Your task to perform on an android device: turn off smart reply in the gmail app Image 0: 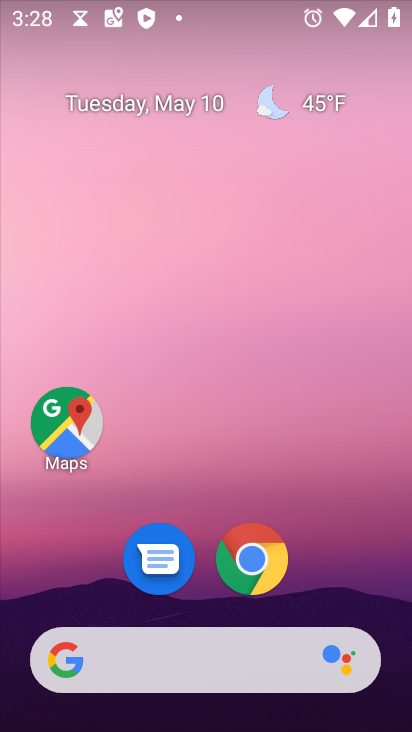
Step 0: drag from (396, 579) to (137, 33)
Your task to perform on an android device: turn off smart reply in the gmail app Image 1: 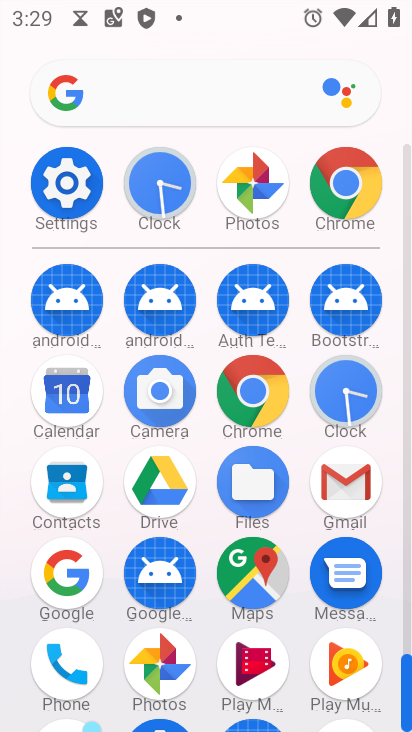
Step 1: click (345, 489)
Your task to perform on an android device: turn off smart reply in the gmail app Image 2: 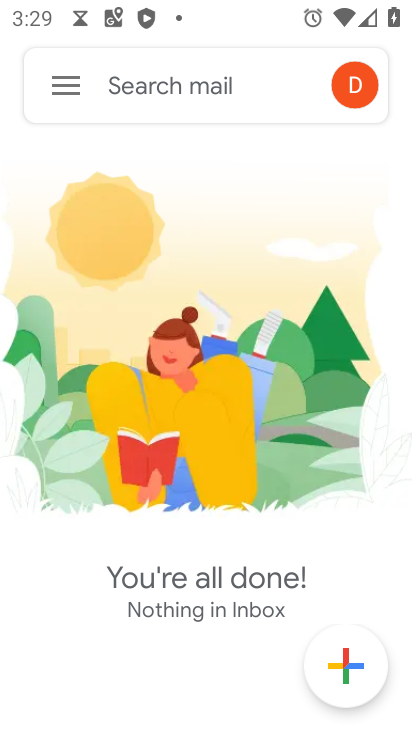
Step 2: click (55, 103)
Your task to perform on an android device: turn off smart reply in the gmail app Image 3: 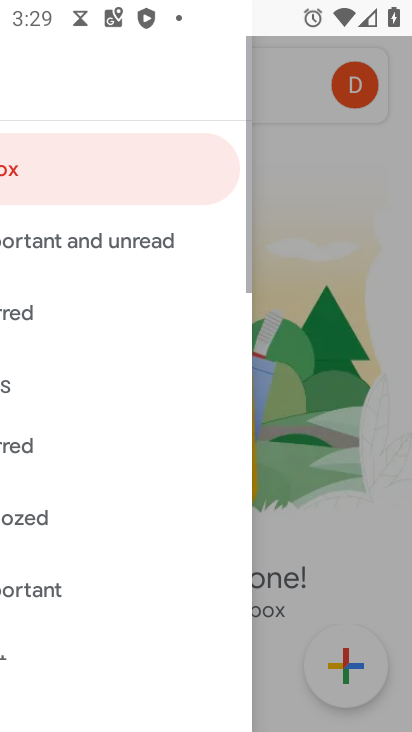
Step 3: click (62, 82)
Your task to perform on an android device: turn off smart reply in the gmail app Image 4: 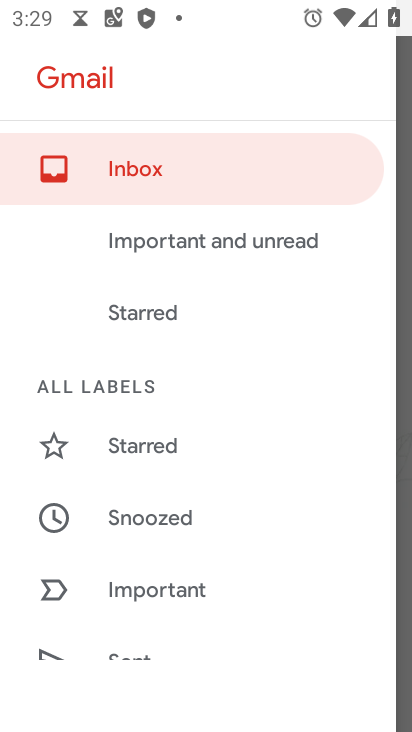
Step 4: drag from (170, 583) to (145, 176)
Your task to perform on an android device: turn off smart reply in the gmail app Image 5: 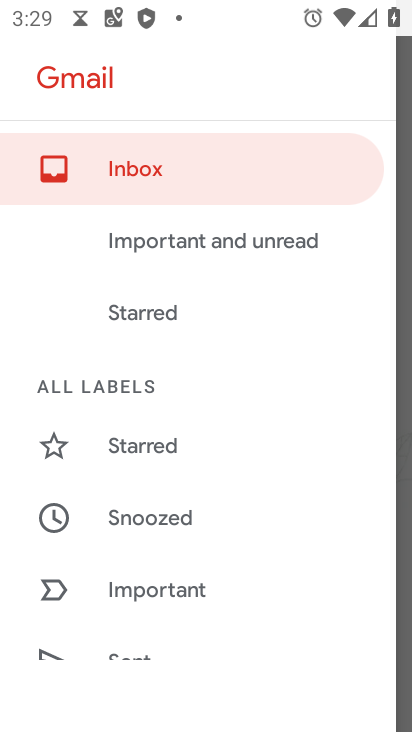
Step 5: drag from (196, 266) to (209, 231)
Your task to perform on an android device: turn off smart reply in the gmail app Image 6: 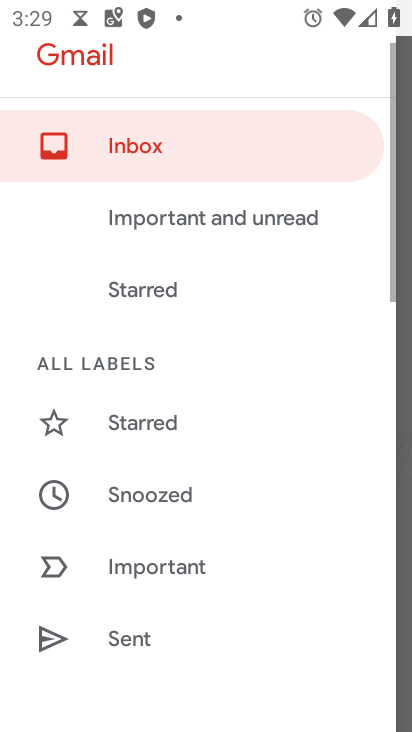
Step 6: drag from (115, 479) to (115, 320)
Your task to perform on an android device: turn off smart reply in the gmail app Image 7: 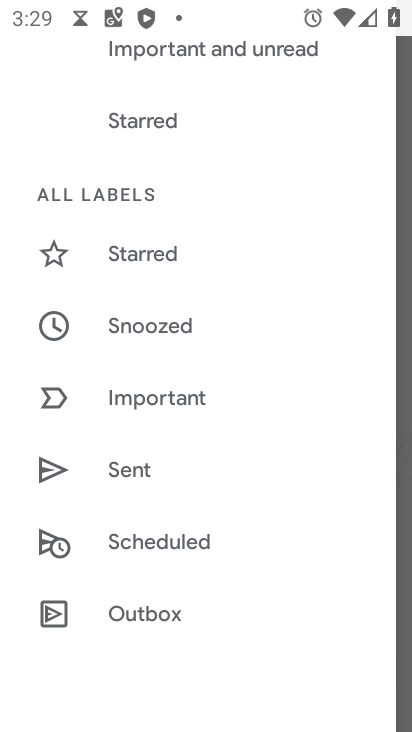
Step 7: drag from (165, 372) to (168, 132)
Your task to perform on an android device: turn off smart reply in the gmail app Image 8: 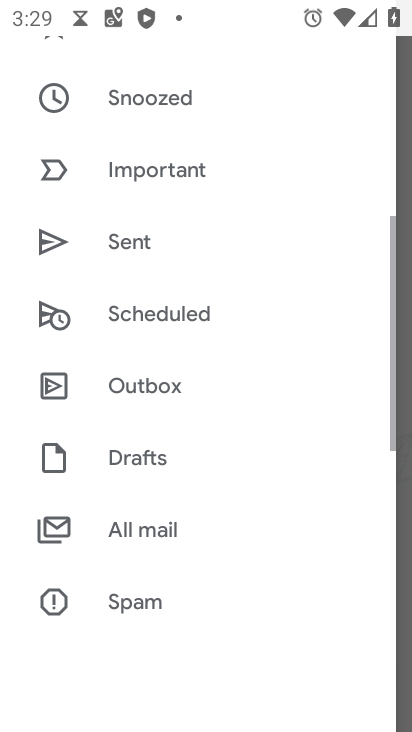
Step 8: drag from (245, 576) to (228, 207)
Your task to perform on an android device: turn off smart reply in the gmail app Image 9: 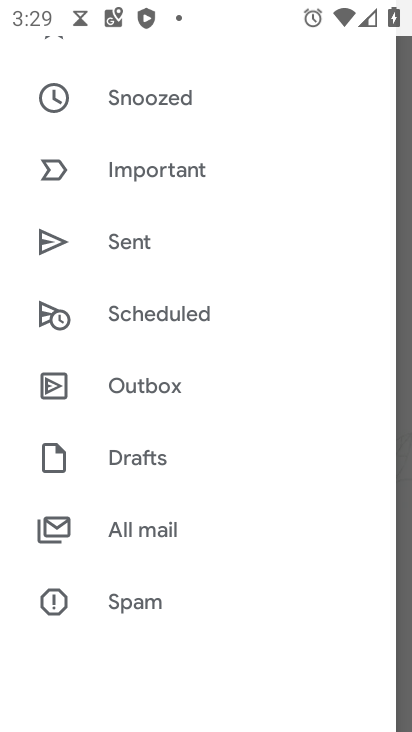
Step 9: drag from (127, 185) to (229, 159)
Your task to perform on an android device: turn off smart reply in the gmail app Image 10: 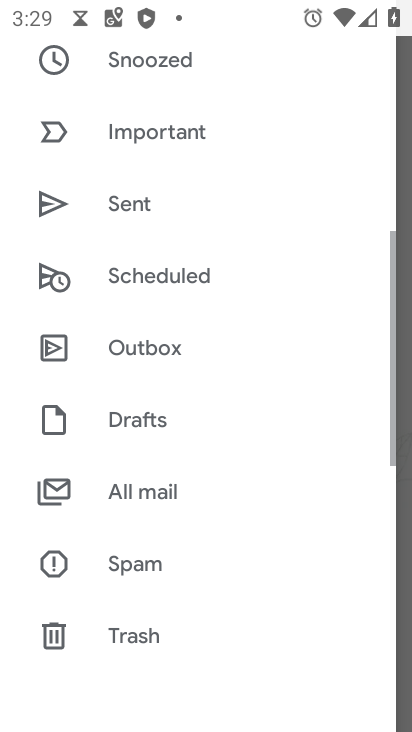
Step 10: drag from (157, 164) to (119, 201)
Your task to perform on an android device: turn off smart reply in the gmail app Image 11: 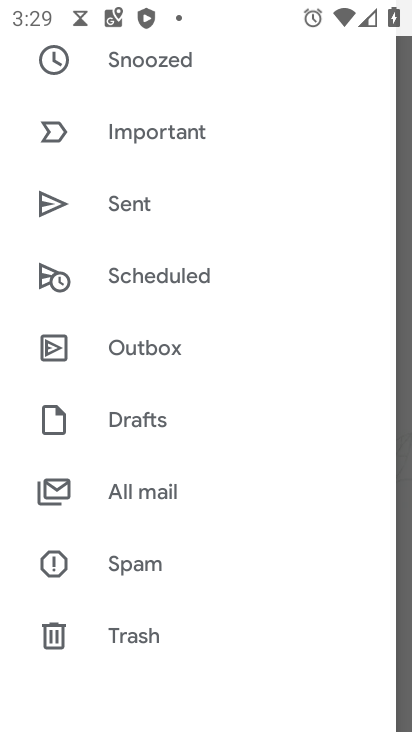
Step 11: drag from (144, 140) to (126, 3)
Your task to perform on an android device: turn off smart reply in the gmail app Image 12: 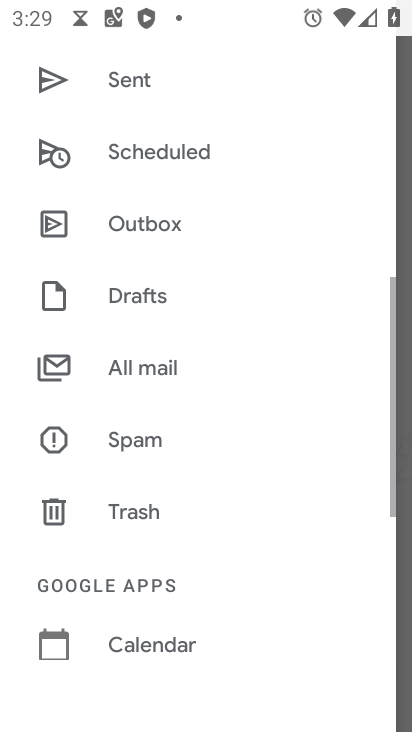
Step 12: drag from (131, 333) to (42, 11)
Your task to perform on an android device: turn off smart reply in the gmail app Image 13: 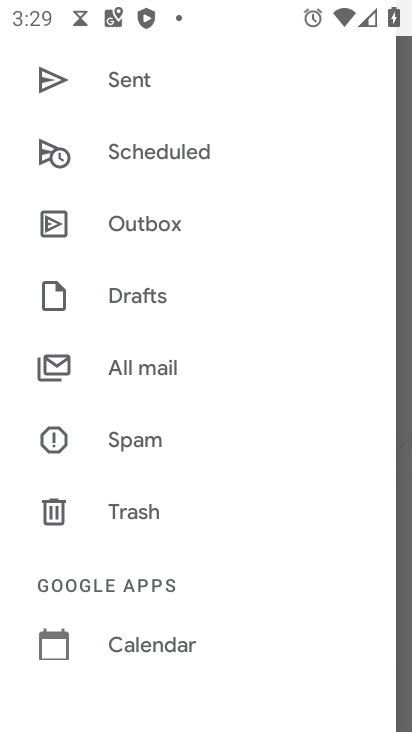
Step 13: drag from (147, 353) to (168, 0)
Your task to perform on an android device: turn off smart reply in the gmail app Image 14: 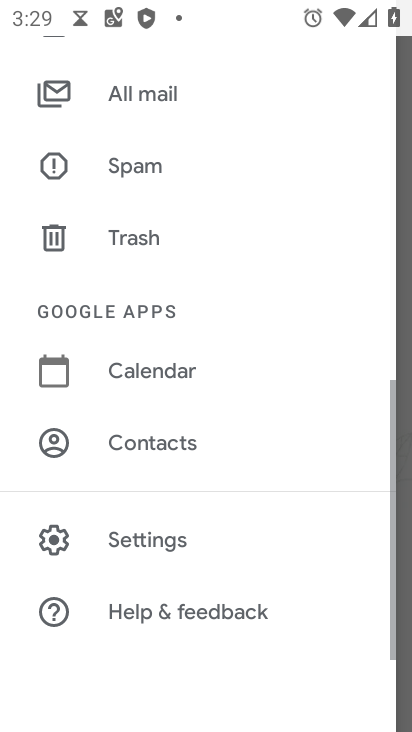
Step 14: click (158, 535)
Your task to perform on an android device: turn off smart reply in the gmail app Image 15: 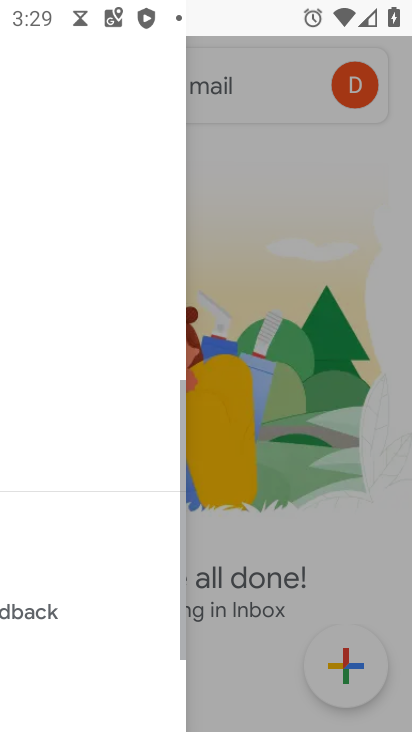
Step 15: click (156, 535)
Your task to perform on an android device: turn off smart reply in the gmail app Image 16: 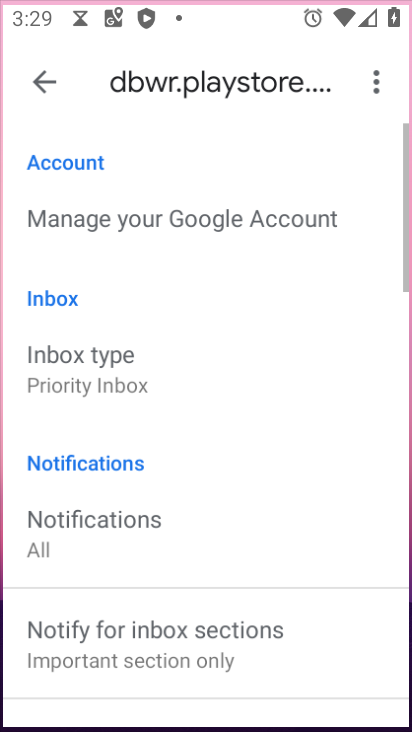
Step 16: click (156, 541)
Your task to perform on an android device: turn off smart reply in the gmail app Image 17: 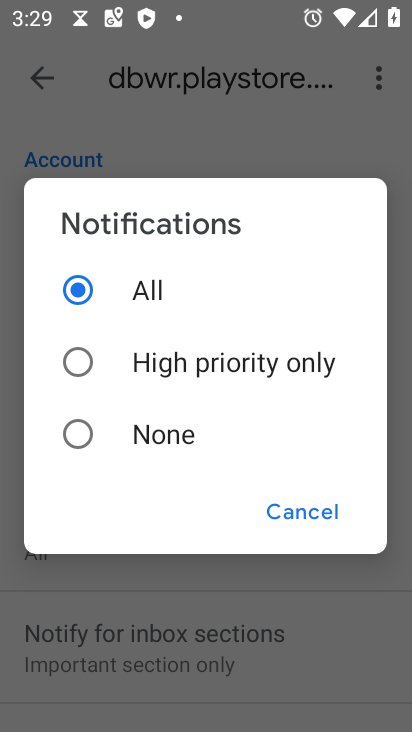
Step 17: click (286, 507)
Your task to perform on an android device: turn off smart reply in the gmail app Image 18: 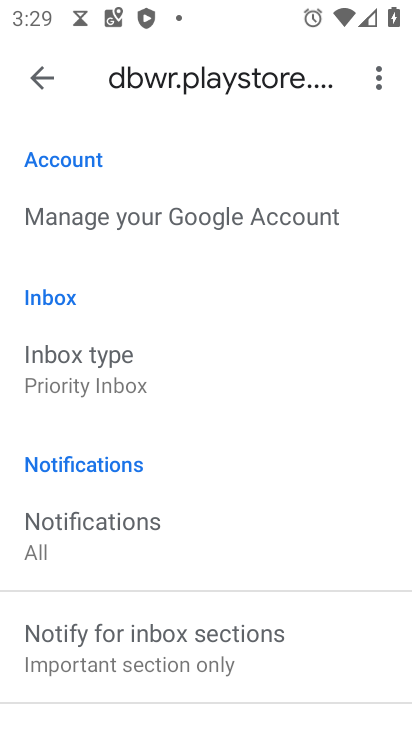
Step 18: drag from (122, 424) to (80, 91)
Your task to perform on an android device: turn off smart reply in the gmail app Image 19: 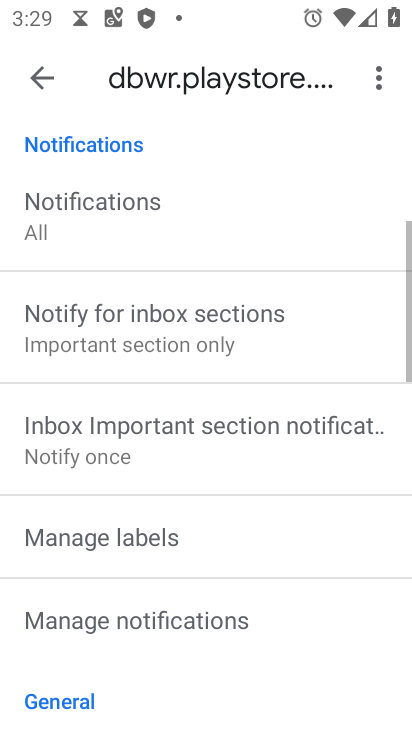
Step 19: drag from (233, 344) to (242, 70)
Your task to perform on an android device: turn off smart reply in the gmail app Image 20: 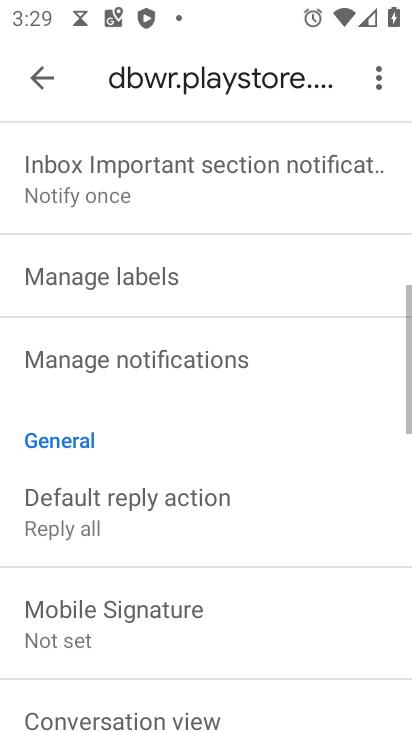
Step 20: click (108, 112)
Your task to perform on an android device: turn off smart reply in the gmail app Image 21: 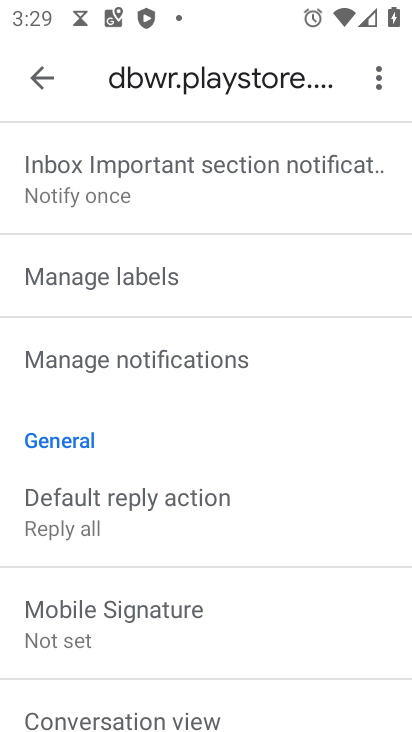
Step 21: drag from (110, 570) to (156, 374)
Your task to perform on an android device: turn off smart reply in the gmail app Image 22: 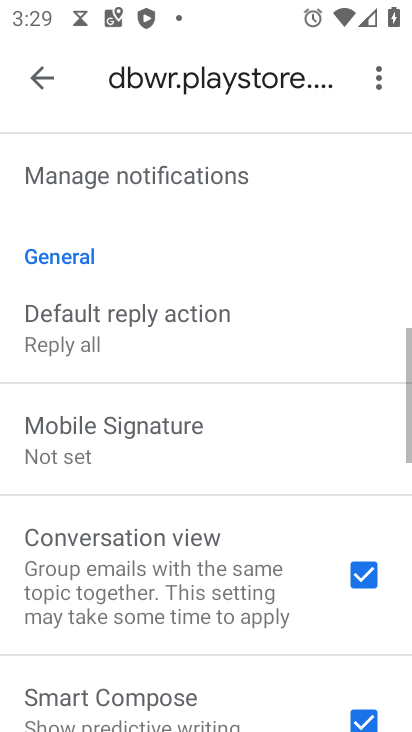
Step 22: drag from (142, 241) to (119, 173)
Your task to perform on an android device: turn off smart reply in the gmail app Image 23: 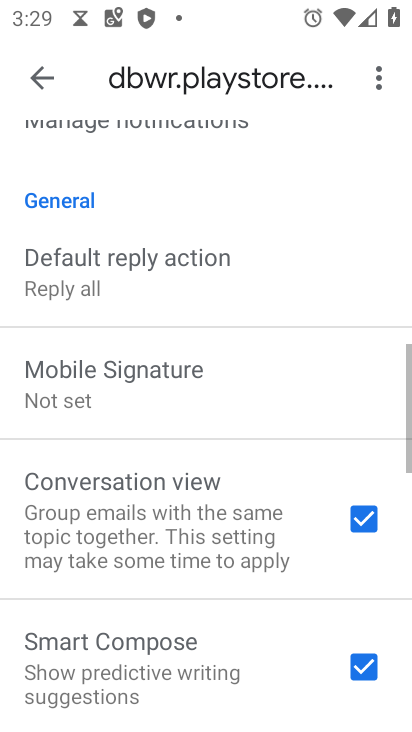
Step 23: drag from (151, 597) to (164, 87)
Your task to perform on an android device: turn off smart reply in the gmail app Image 24: 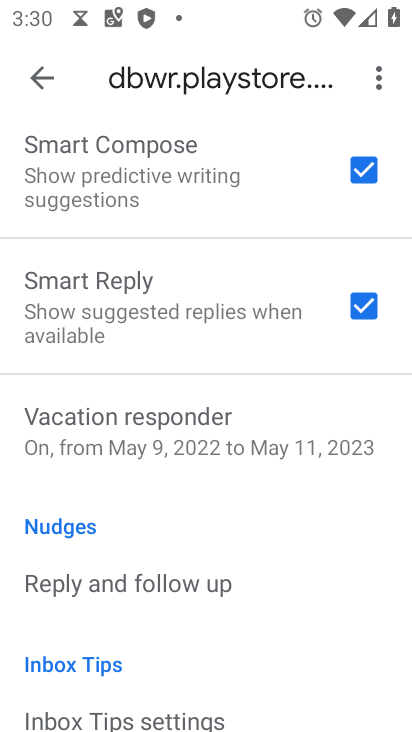
Step 24: click (382, 294)
Your task to perform on an android device: turn off smart reply in the gmail app Image 25: 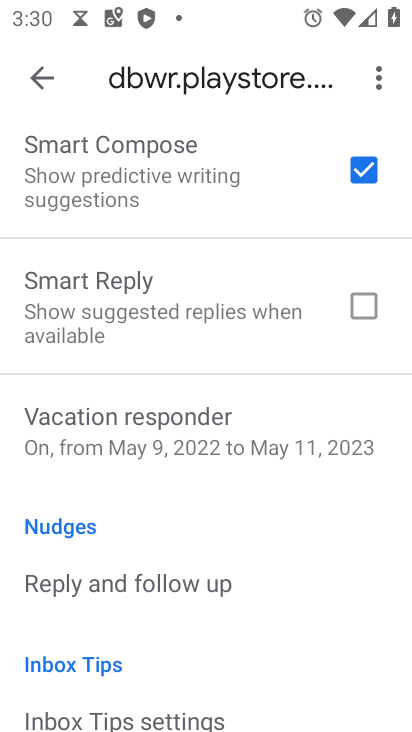
Step 25: task complete